Your task to perform on an android device: What's the weather going to be tomorrow? Image 0: 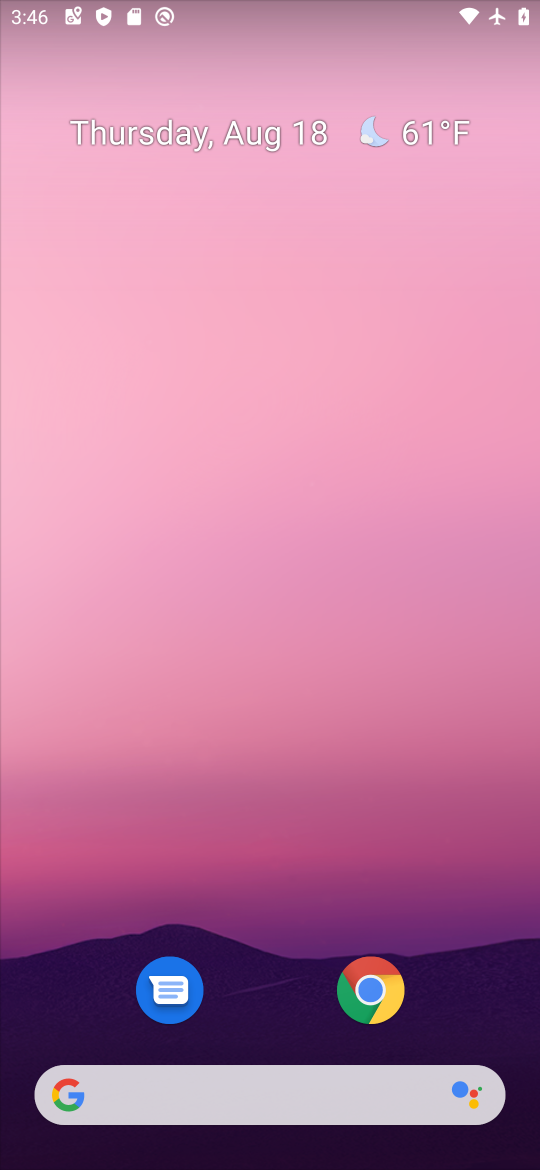
Step 0: click (412, 144)
Your task to perform on an android device: What's the weather going to be tomorrow? Image 1: 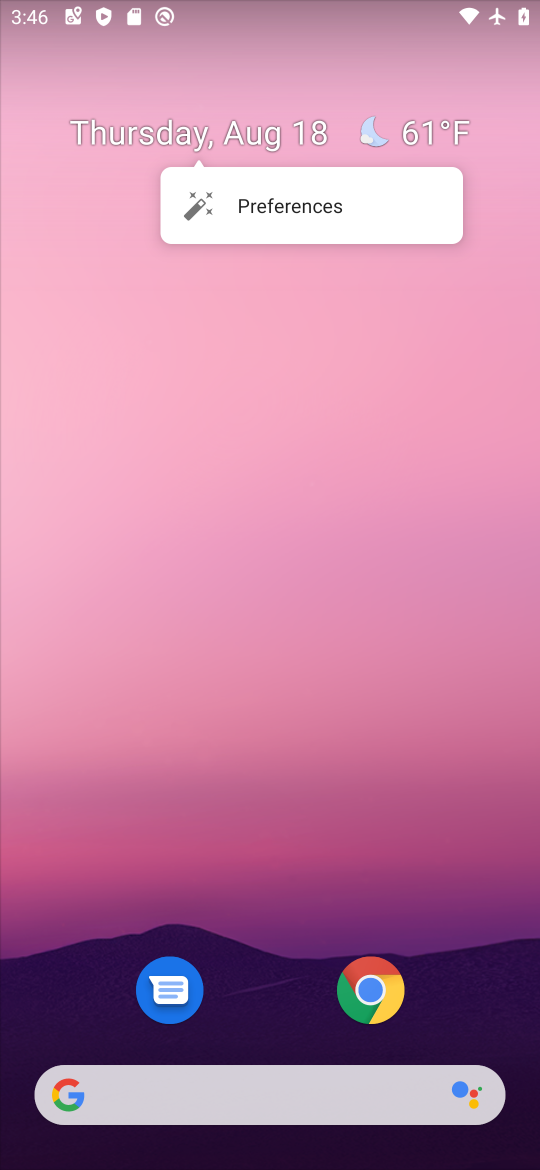
Step 1: click (424, 140)
Your task to perform on an android device: What's the weather going to be tomorrow? Image 2: 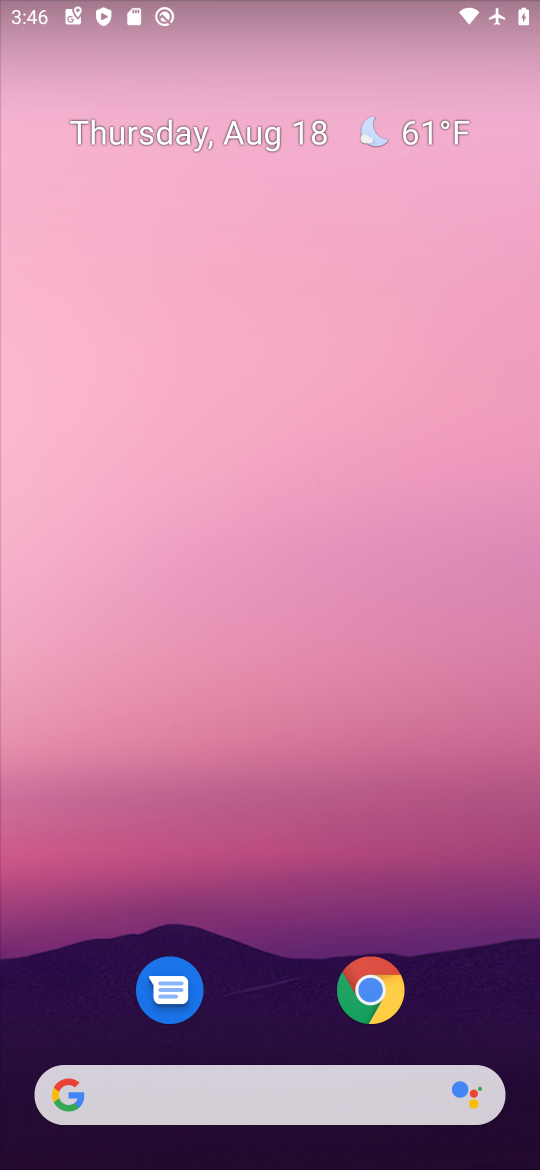
Step 2: click (420, 129)
Your task to perform on an android device: What's the weather going to be tomorrow? Image 3: 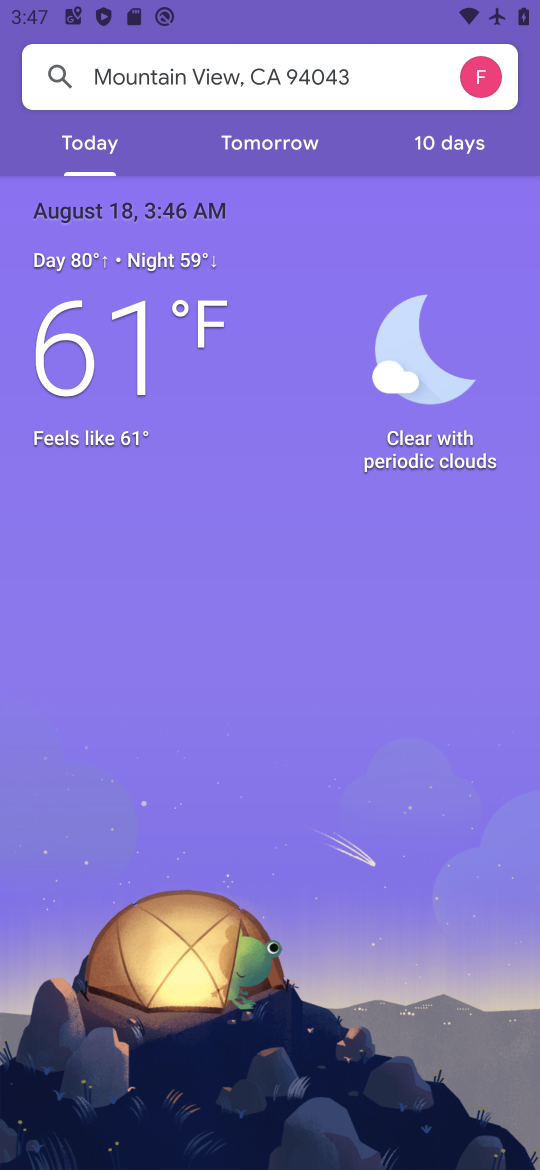
Step 3: click (289, 146)
Your task to perform on an android device: What's the weather going to be tomorrow? Image 4: 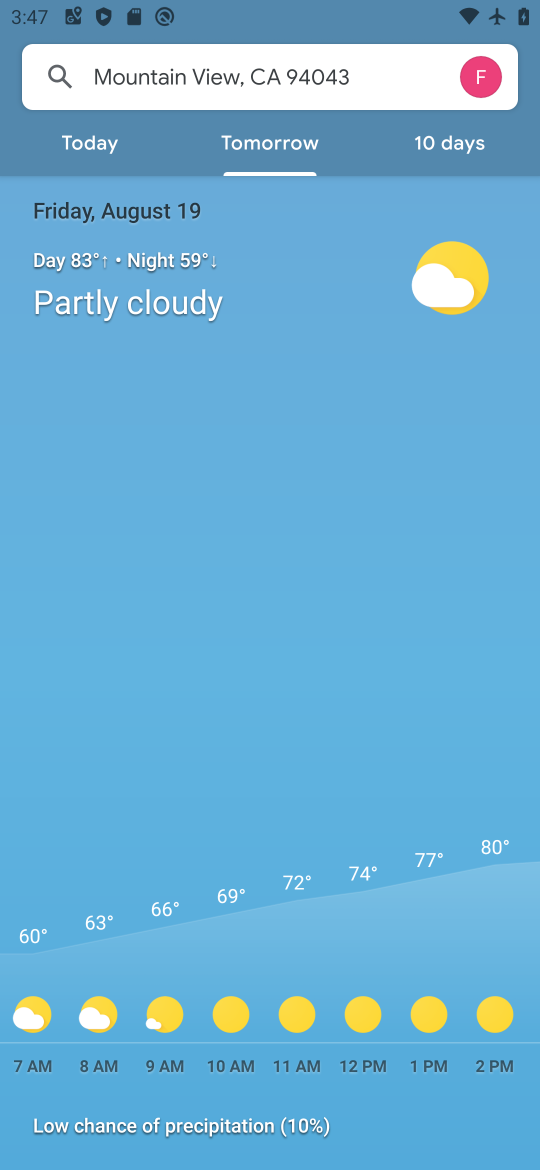
Step 4: task complete